Your task to perform on an android device: make emails show in primary in the gmail app Image 0: 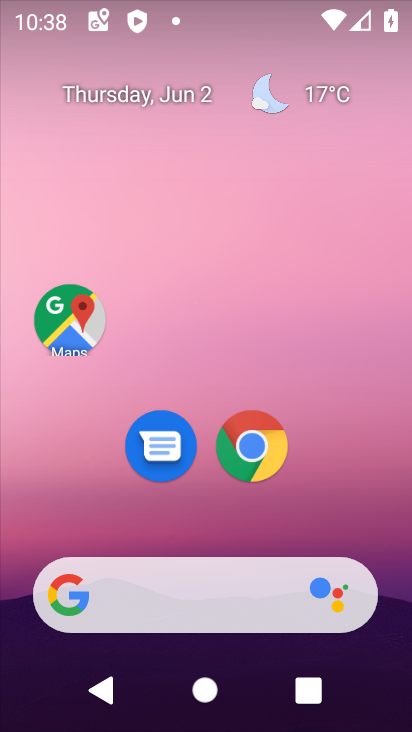
Step 0: drag from (335, 502) to (326, 144)
Your task to perform on an android device: make emails show in primary in the gmail app Image 1: 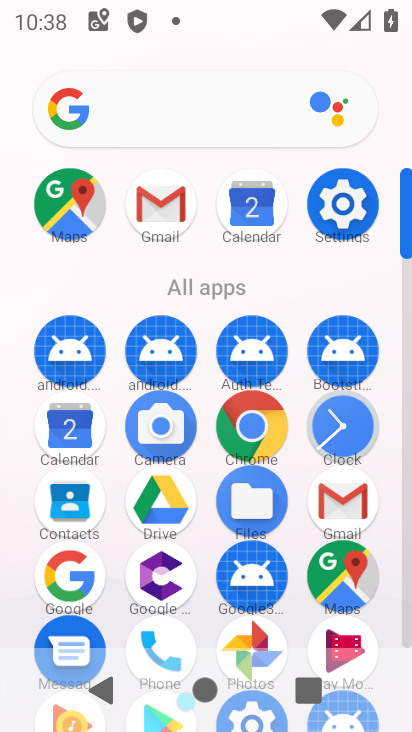
Step 1: drag from (180, 591) to (214, 154)
Your task to perform on an android device: make emails show in primary in the gmail app Image 2: 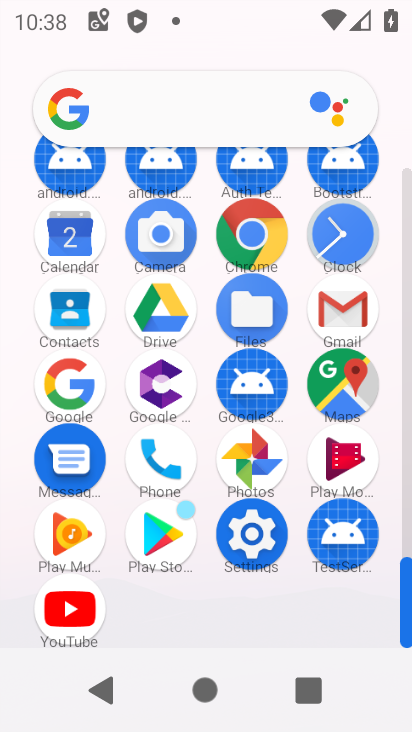
Step 2: click (341, 308)
Your task to perform on an android device: make emails show in primary in the gmail app Image 3: 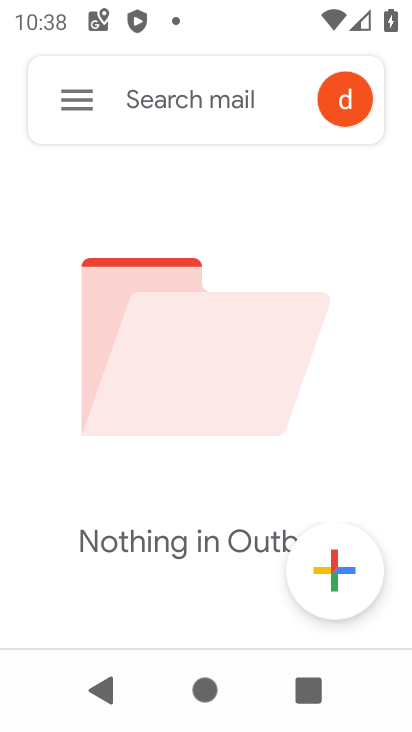
Step 3: click (68, 102)
Your task to perform on an android device: make emails show in primary in the gmail app Image 4: 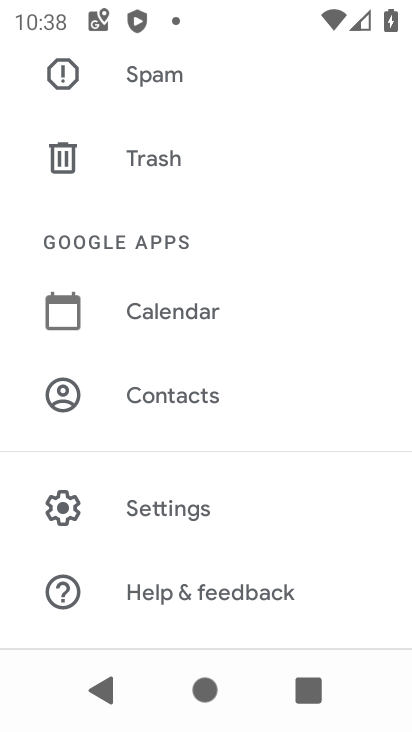
Step 4: click (173, 504)
Your task to perform on an android device: make emails show in primary in the gmail app Image 5: 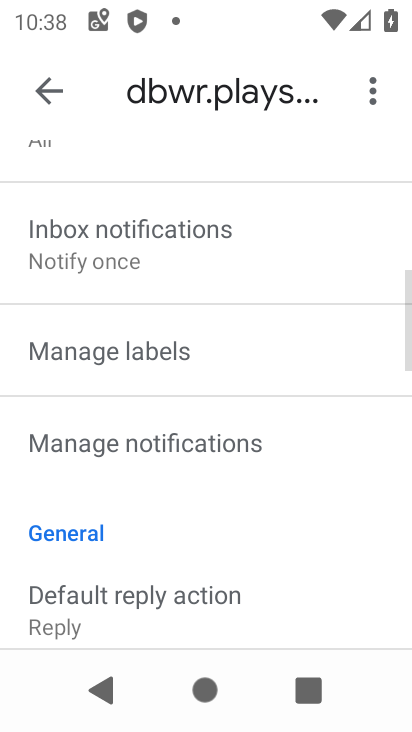
Step 5: drag from (173, 449) to (203, 731)
Your task to perform on an android device: make emails show in primary in the gmail app Image 6: 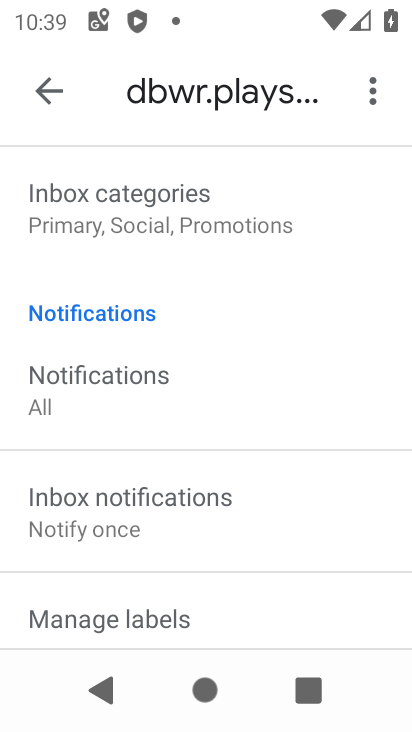
Step 6: drag from (136, 274) to (103, 683)
Your task to perform on an android device: make emails show in primary in the gmail app Image 7: 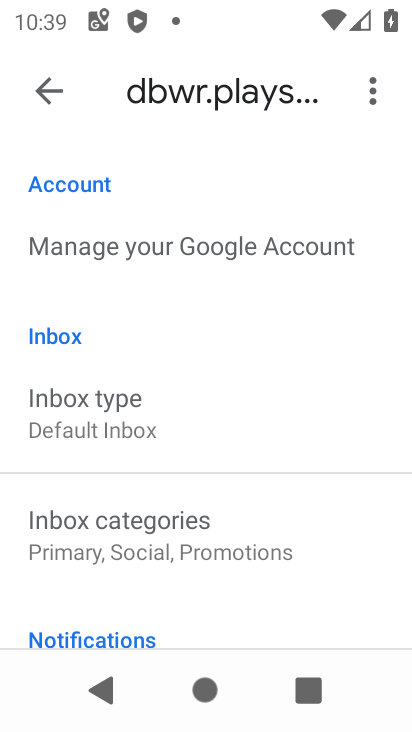
Step 7: click (105, 431)
Your task to perform on an android device: make emails show in primary in the gmail app Image 8: 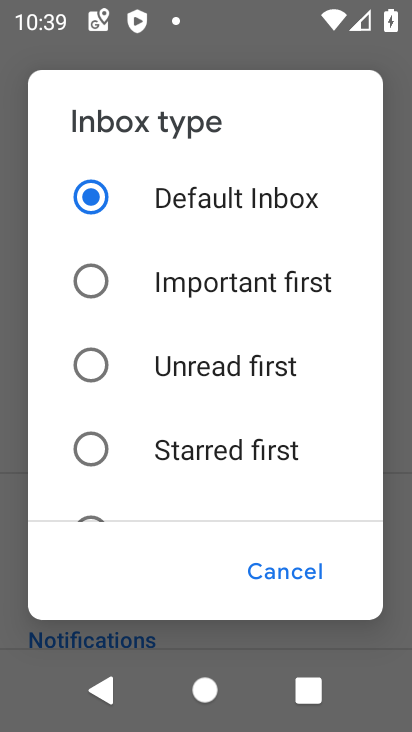
Step 8: click (259, 573)
Your task to perform on an android device: make emails show in primary in the gmail app Image 9: 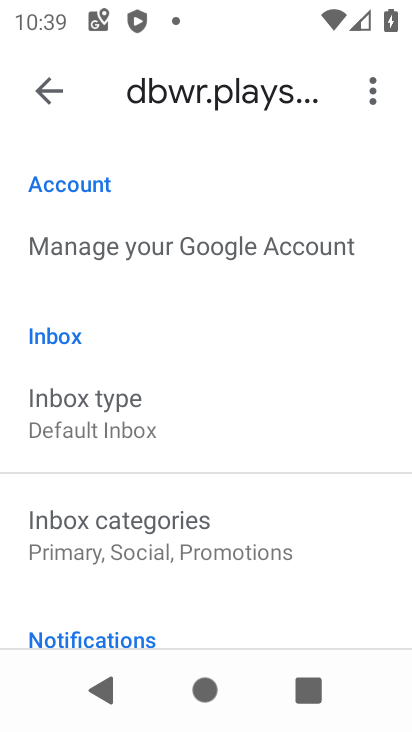
Step 9: click (160, 538)
Your task to perform on an android device: make emails show in primary in the gmail app Image 10: 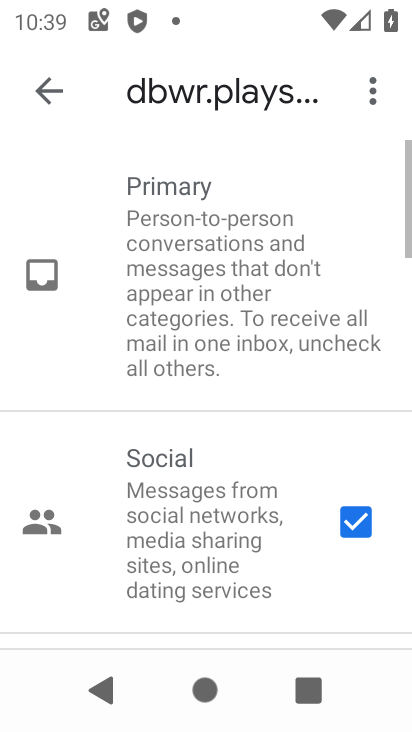
Step 10: click (185, 253)
Your task to perform on an android device: make emails show in primary in the gmail app Image 11: 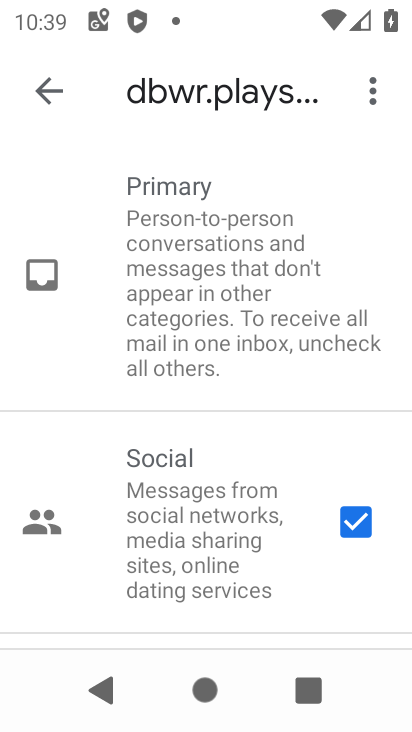
Step 11: task complete